Your task to perform on an android device: turn off data saver in the chrome app Image 0: 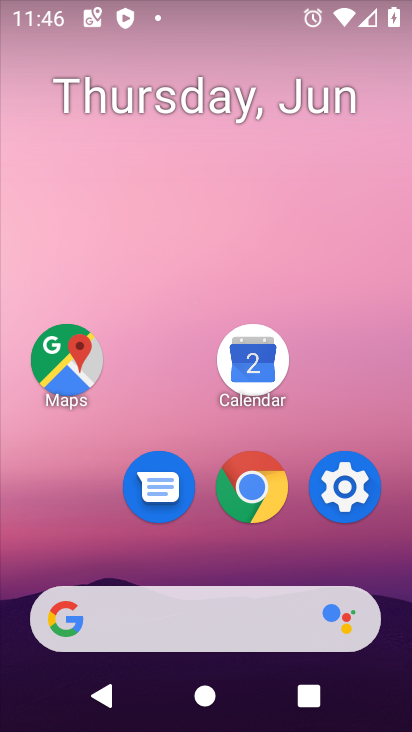
Step 0: drag from (251, 641) to (300, 28)
Your task to perform on an android device: turn off data saver in the chrome app Image 1: 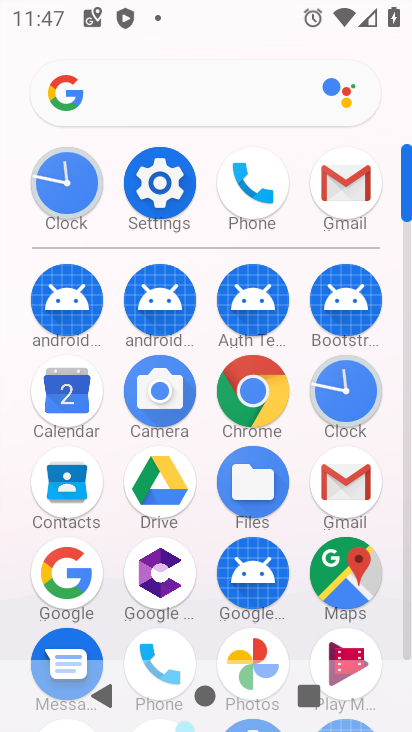
Step 1: click (251, 386)
Your task to perform on an android device: turn off data saver in the chrome app Image 2: 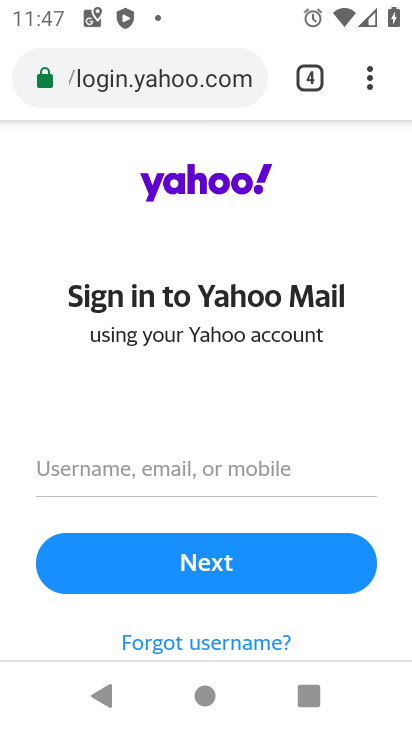
Step 2: click (371, 78)
Your task to perform on an android device: turn off data saver in the chrome app Image 3: 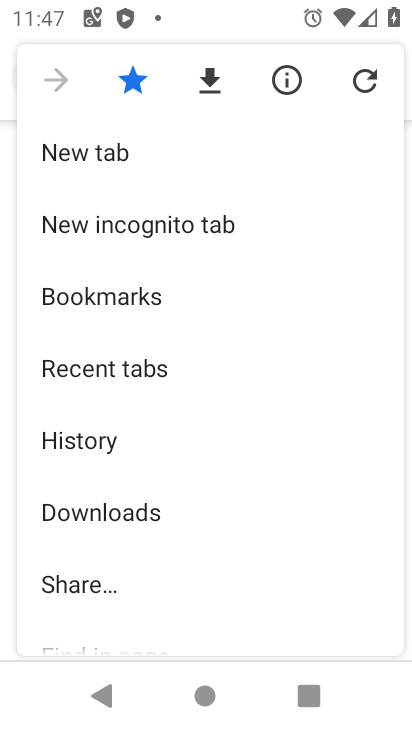
Step 3: drag from (202, 464) to (212, 182)
Your task to perform on an android device: turn off data saver in the chrome app Image 4: 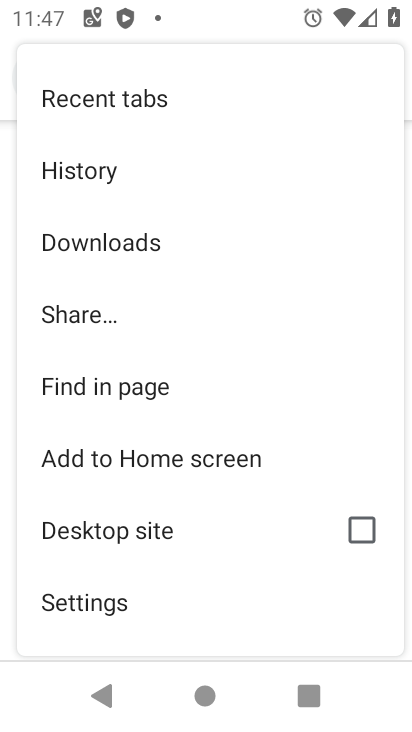
Step 4: click (74, 601)
Your task to perform on an android device: turn off data saver in the chrome app Image 5: 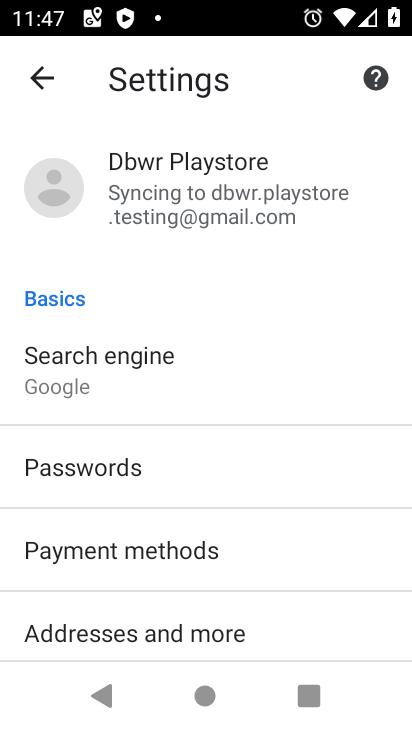
Step 5: drag from (164, 603) to (329, 130)
Your task to perform on an android device: turn off data saver in the chrome app Image 6: 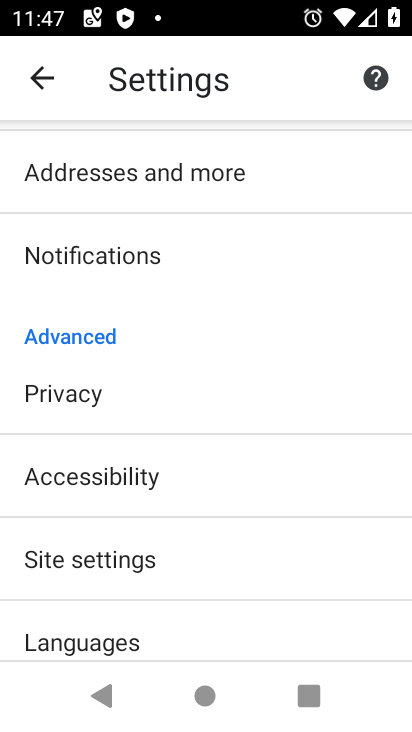
Step 6: drag from (119, 600) to (191, 430)
Your task to perform on an android device: turn off data saver in the chrome app Image 7: 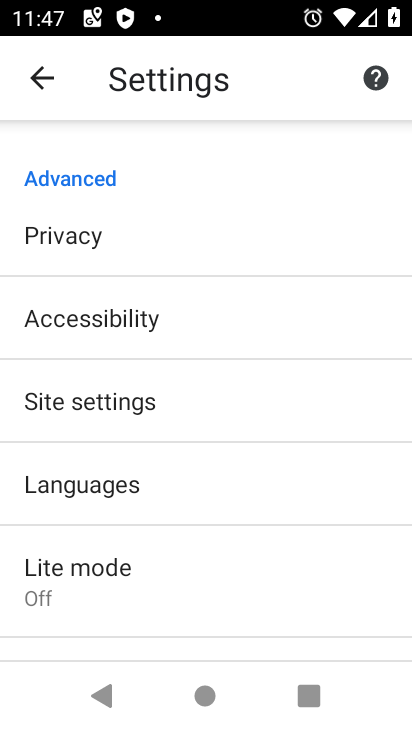
Step 7: click (89, 565)
Your task to perform on an android device: turn off data saver in the chrome app Image 8: 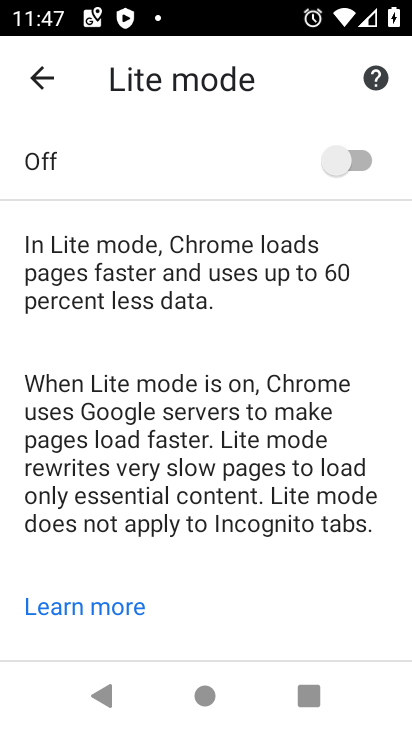
Step 8: click (344, 155)
Your task to perform on an android device: turn off data saver in the chrome app Image 9: 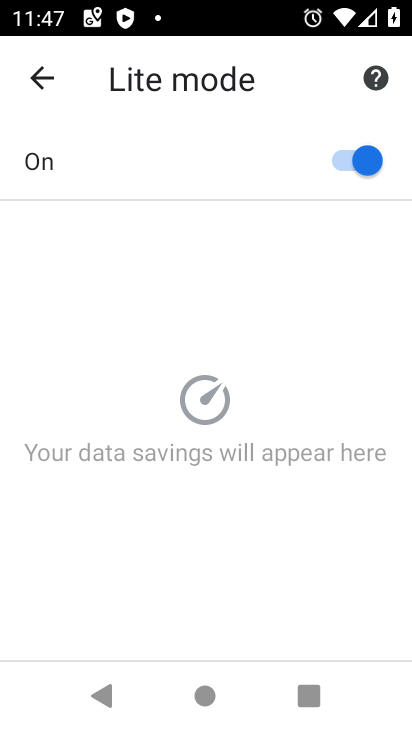
Step 9: click (341, 156)
Your task to perform on an android device: turn off data saver in the chrome app Image 10: 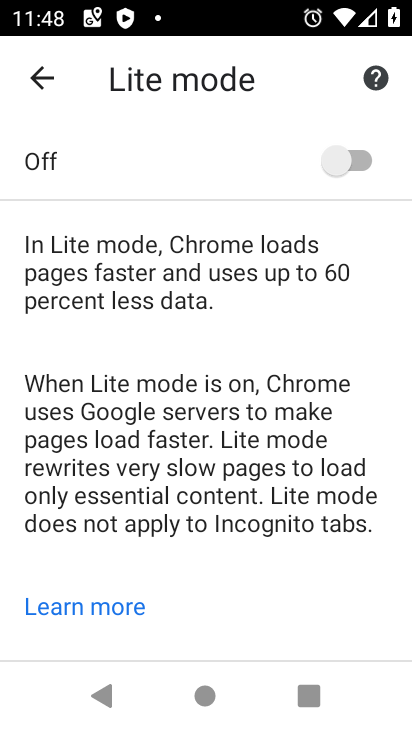
Step 10: task complete